Your task to perform on an android device: Open calendar and show me the first week of next month Image 0: 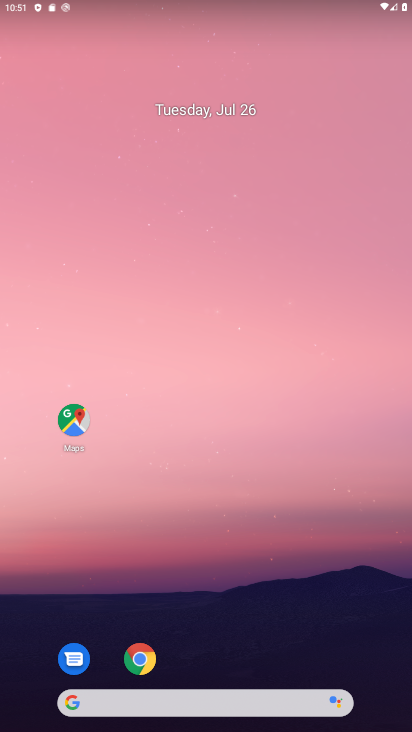
Step 0: drag from (42, 415) to (156, 168)
Your task to perform on an android device: Open calendar and show me the first week of next month Image 1: 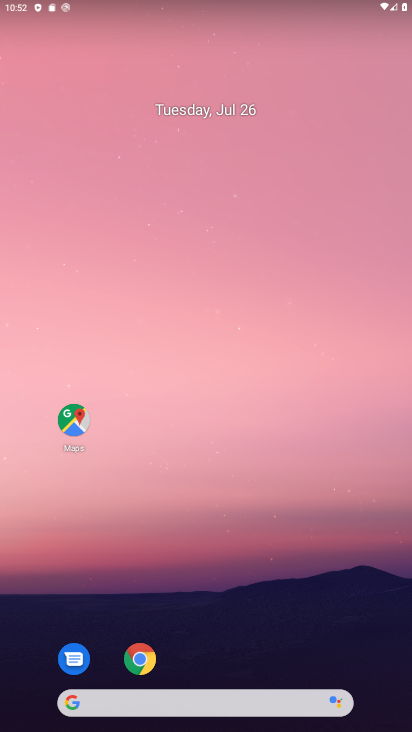
Step 1: drag from (40, 582) to (247, 79)
Your task to perform on an android device: Open calendar and show me the first week of next month Image 2: 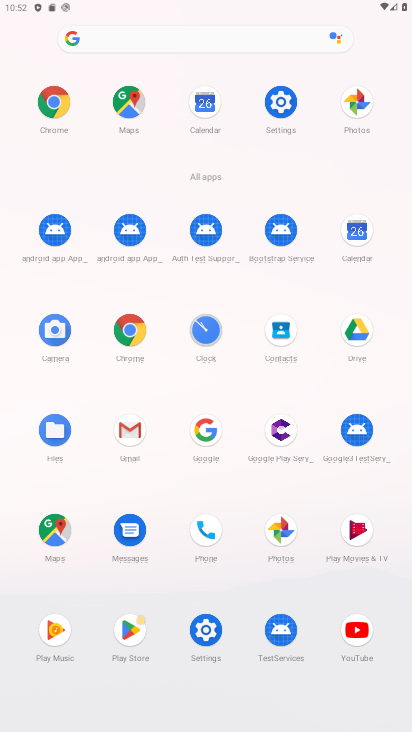
Step 2: click (352, 226)
Your task to perform on an android device: Open calendar and show me the first week of next month Image 3: 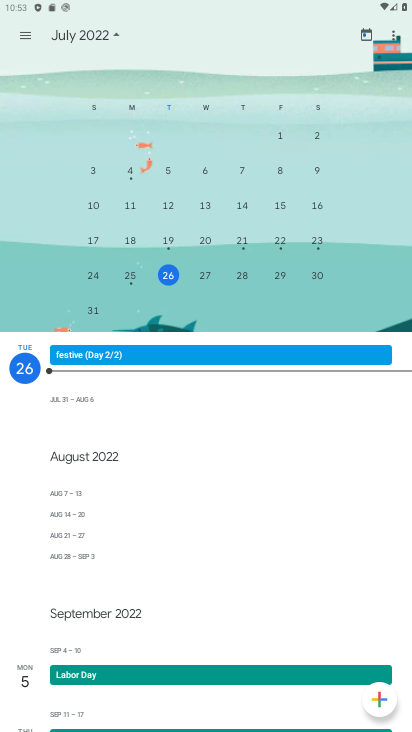
Step 3: task complete